Your task to perform on an android device: Clear the cart on amazon.com. Search for usb-a to usb-b on amazon.com, select the first entry, add it to the cart, then select checkout. Image 0: 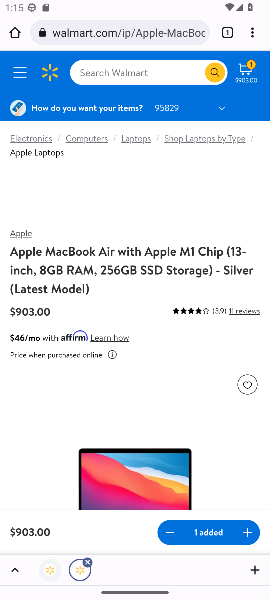
Step 0: click (125, 27)
Your task to perform on an android device: Clear the cart on amazon.com. Search for usb-a to usb-b on amazon.com, select the first entry, add it to the cart, then select checkout. Image 1: 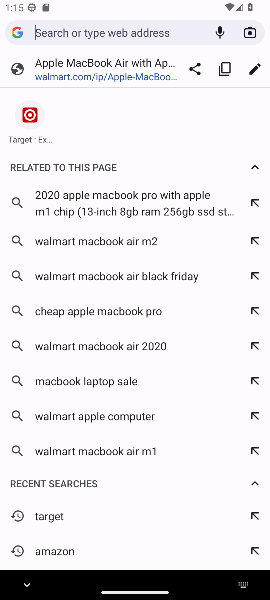
Step 1: type "amazon"
Your task to perform on an android device: Clear the cart on amazon.com. Search for usb-a to usb-b on amazon.com, select the first entry, add it to the cart, then select checkout. Image 2: 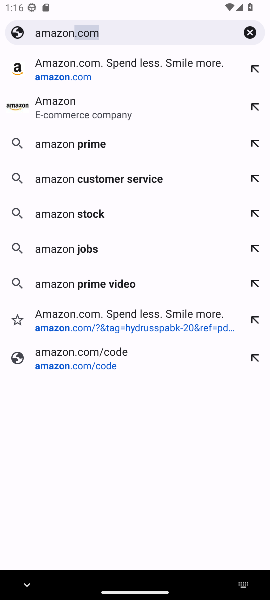
Step 2: click (100, 70)
Your task to perform on an android device: Clear the cart on amazon.com. Search for usb-a to usb-b on amazon.com, select the first entry, add it to the cart, then select checkout. Image 3: 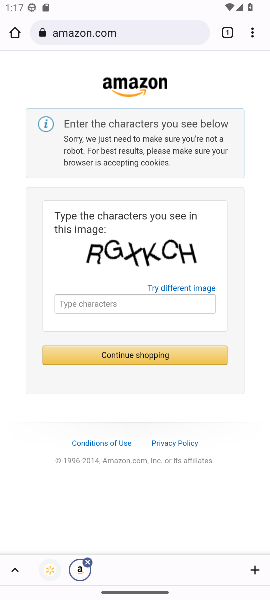
Step 3: click (138, 303)
Your task to perform on an android device: Clear the cart on amazon.com. Search for usb-a to usb-b on amazon.com, select the first entry, add it to the cart, then select checkout. Image 4: 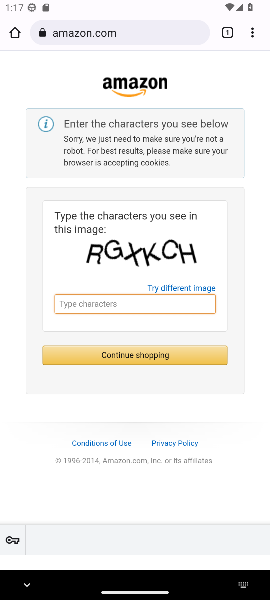
Step 4: type "RGXKCH"
Your task to perform on an android device: Clear the cart on amazon.com. Search for usb-a to usb-b on amazon.com, select the first entry, add it to the cart, then select checkout. Image 5: 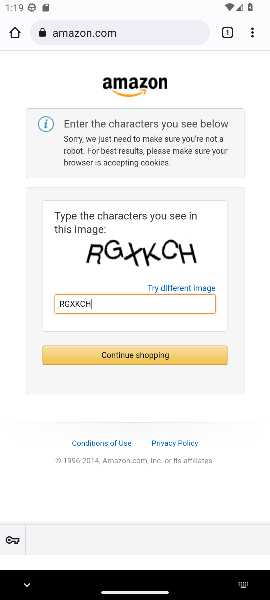
Step 5: click (166, 354)
Your task to perform on an android device: Clear the cart on amazon.com. Search for usb-a to usb-b on amazon.com, select the first entry, add it to the cart, then select checkout. Image 6: 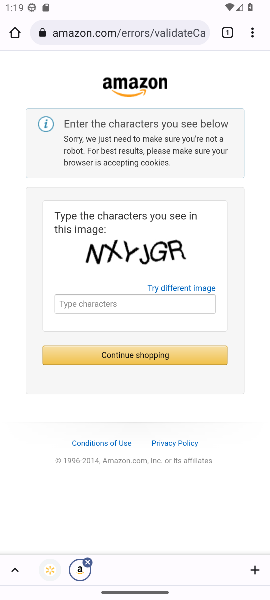
Step 6: click (115, 300)
Your task to perform on an android device: Clear the cart on amazon.com. Search for usb-a to usb-b on amazon.com, select the first entry, add it to the cart, then select checkout. Image 7: 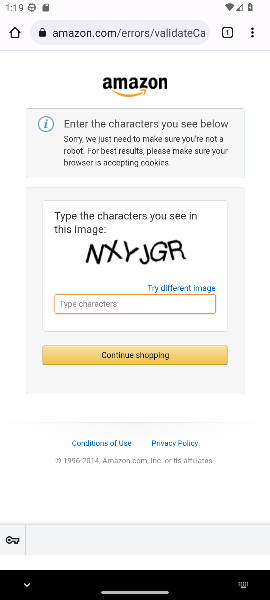
Step 7: task complete